Your task to perform on an android device: turn off picture-in-picture Image 0: 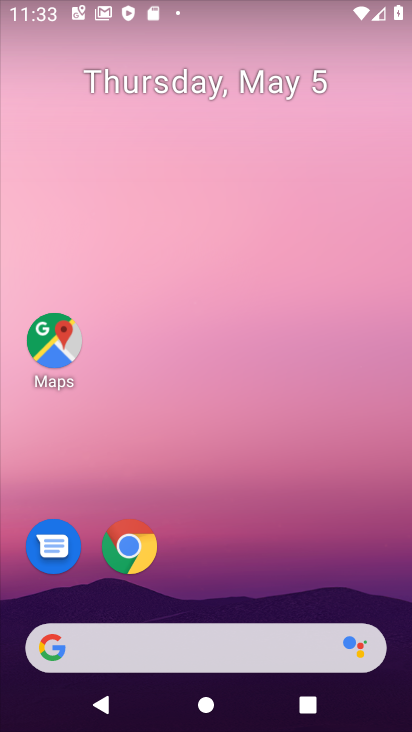
Step 0: drag from (248, 578) to (250, 85)
Your task to perform on an android device: turn off picture-in-picture Image 1: 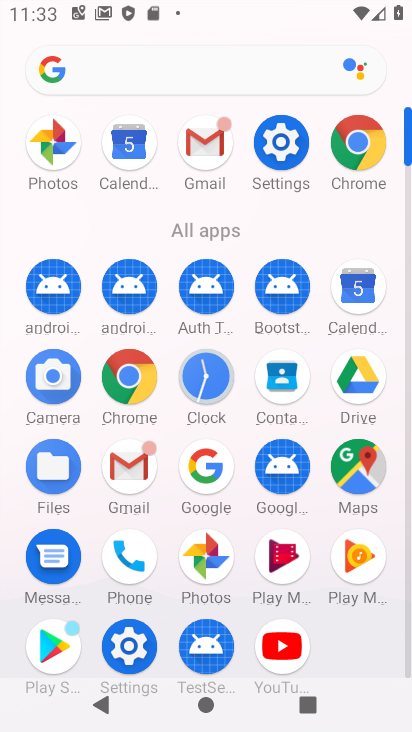
Step 1: click (288, 138)
Your task to perform on an android device: turn off picture-in-picture Image 2: 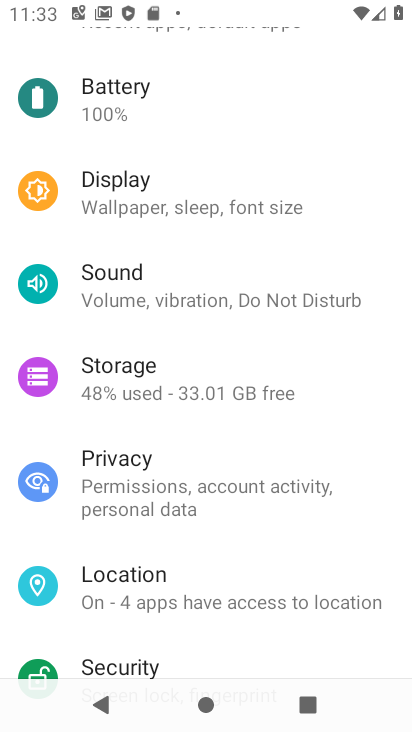
Step 2: drag from (173, 154) to (172, 475)
Your task to perform on an android device: turn off picture-in-picture Image 3: 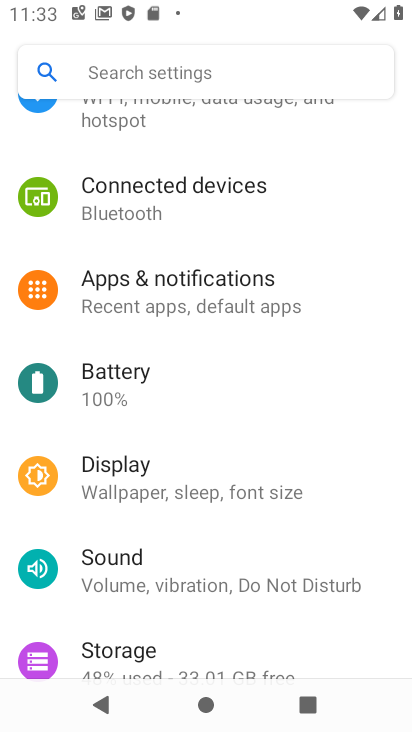
Step 3: click (207, 304)
Your task to perform on an android device: turn off picture-in-picture Image 4: 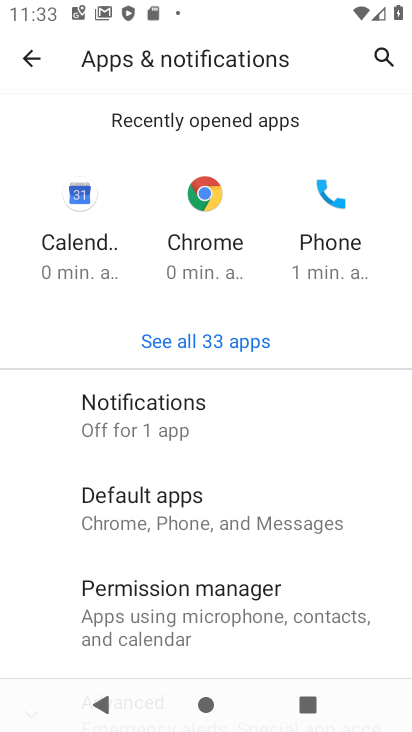
Step 4: drag from (302, 537) to (278, 223)
Your task to perform on an android device: turn off picture-in-picture Image 5: 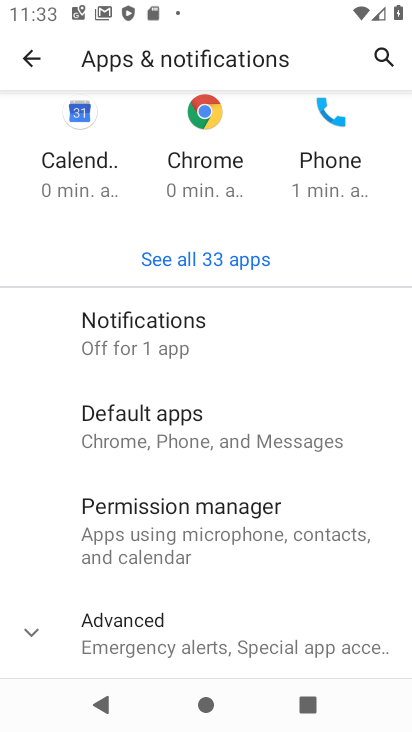
Step 5: click (265, 651)
Your task to perform on an android device: turn off picture-in-picture Image 6: 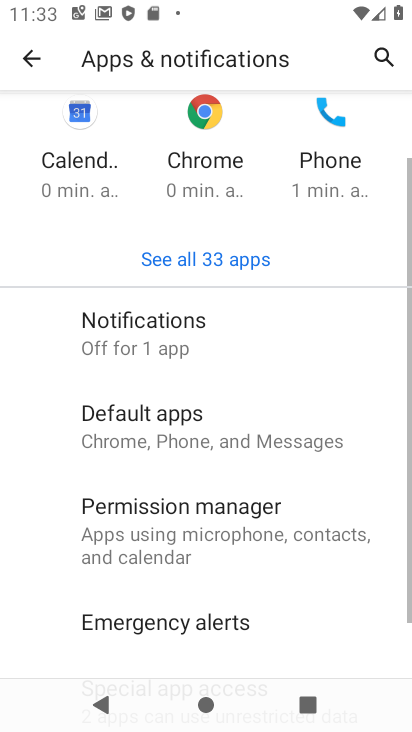
Step 6: drag from (265, 632) to (257, 280)
Your task to perform on an android device: turn off picture-in-picture Image 7: 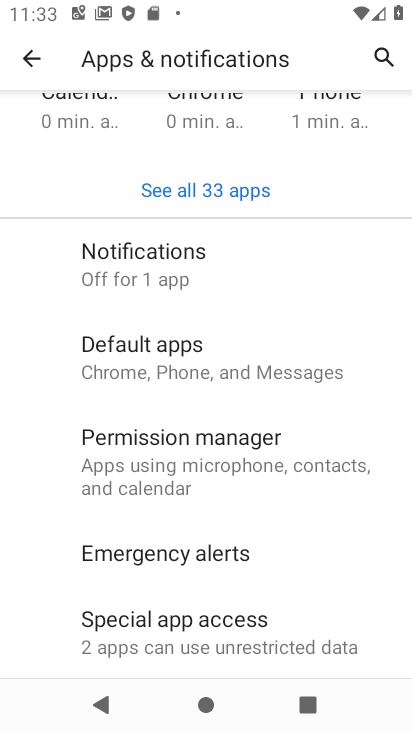
Step 7: click (259, 635)
Your task to perform on an android device: turn off picture-in-picture Image 8: 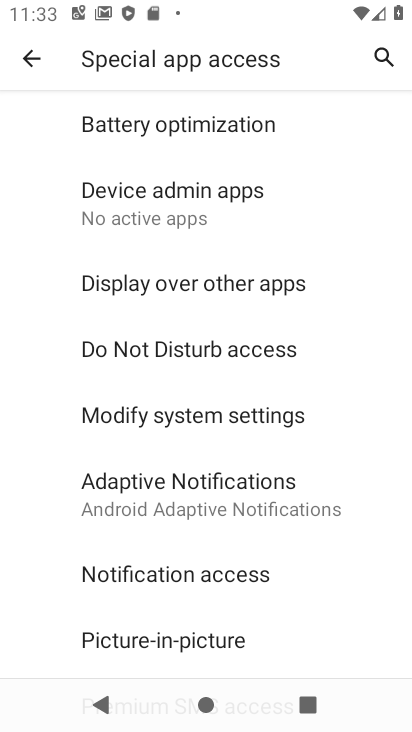
Step 8: click (245, 636)
Your task to perform on an android device: turn off picture-in-picture Image 9: 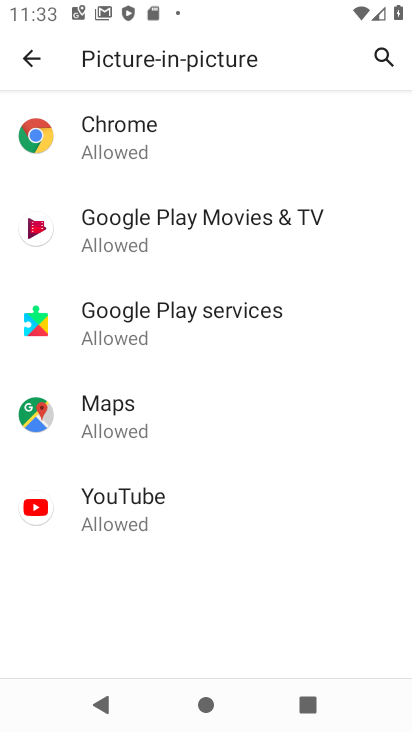
Step 9: click (150, 145)
Your task to perform on an android device: turn off picture-in-picture Image 10: 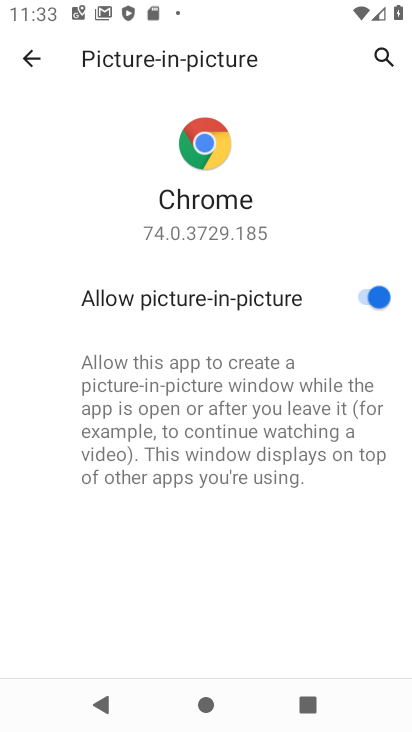
Step 10: click (361, 298)
Your task to perform on an android device: turn off picture-in-picture Image 11: 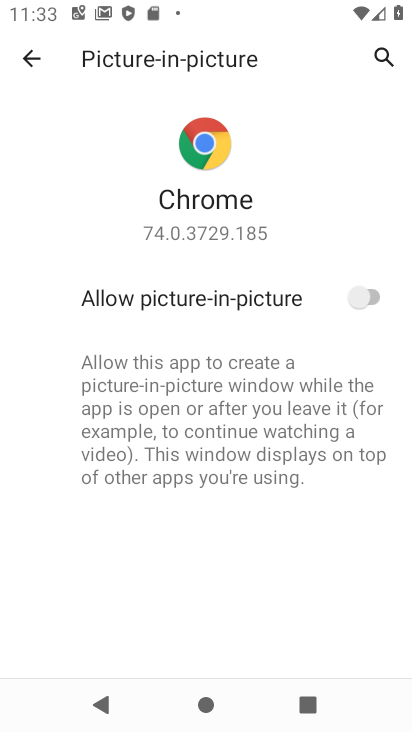
Step 11: click (31, 63)
Your task to perform on an android device: turn off picture-in-picture Image 12: 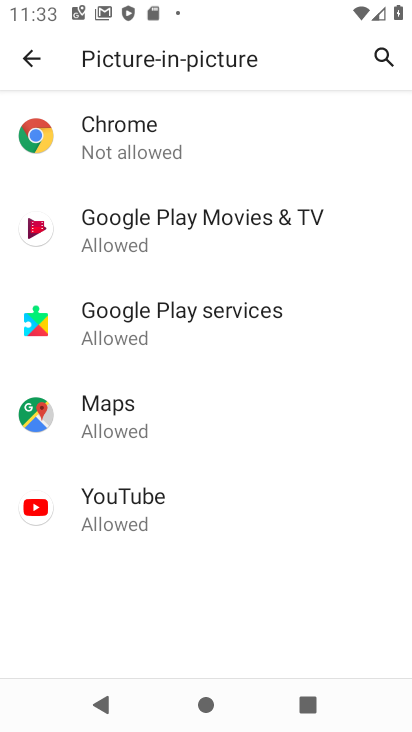
Step 12: click (141, 233)
Your task to perform on an android device: turn off picture-in-picture Image 13: 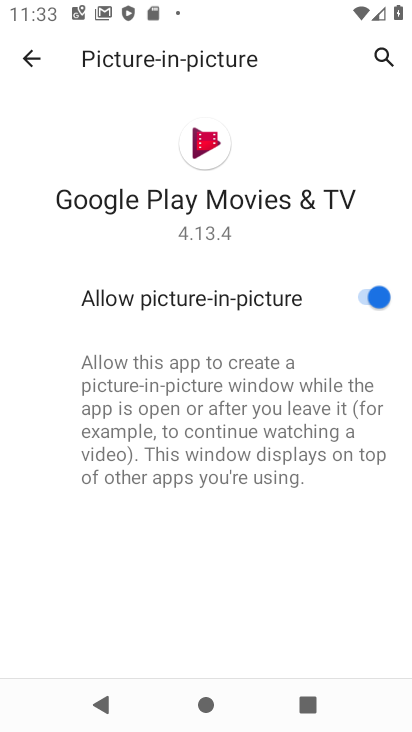
Step 13: click (364, 292)
Your task to perform on an android device: turn off picture-in-picture Image 14: 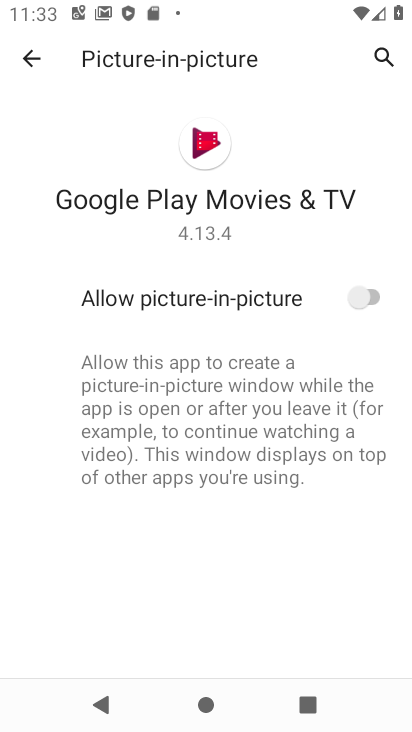
Step 14: click (21, 57)
Your task to perform on an android device: turn off picture-in-picture Image 15: 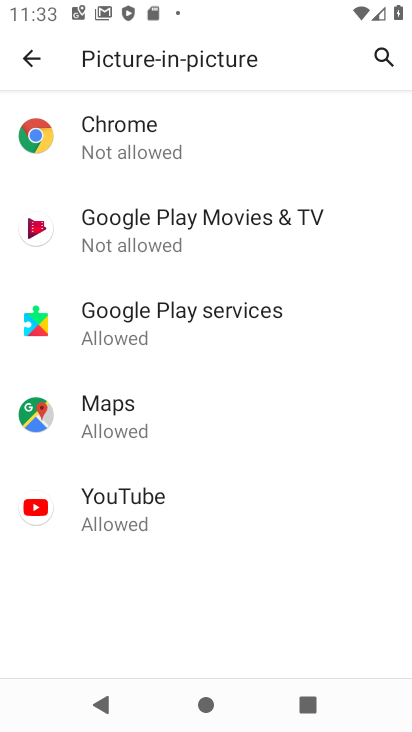
Step 15: click (259, 327)
Your task to perform on an android device: turn off picture-in-picture Image 16: 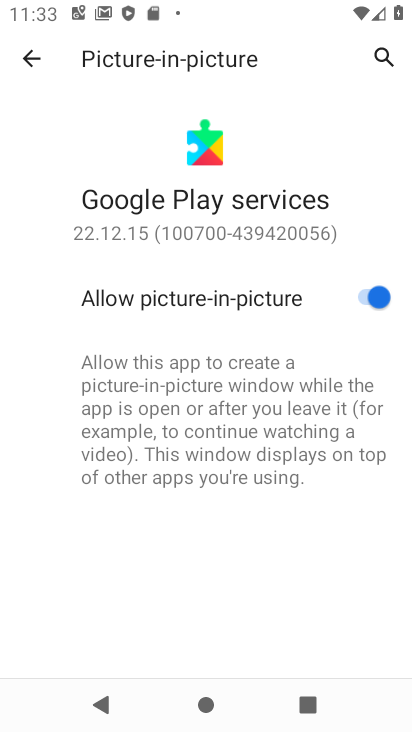
Step 16: click (359, 291)
Your task to perform on an android device: turn off picture-in-picture Image 17: 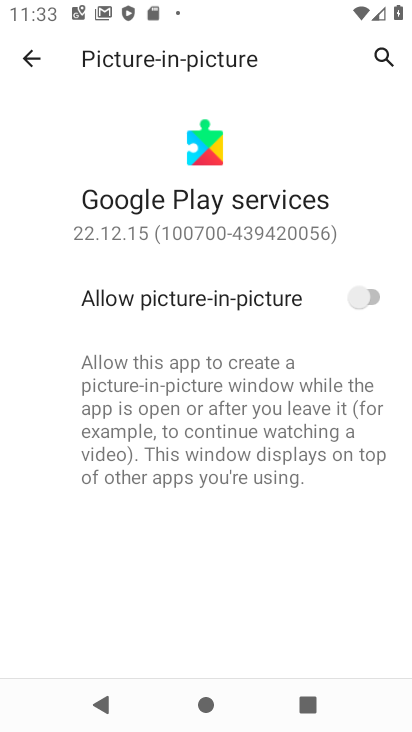
Step 17: click (29, 50)
Your task to perform on an android device: turn off picture-in-picture Image 18: 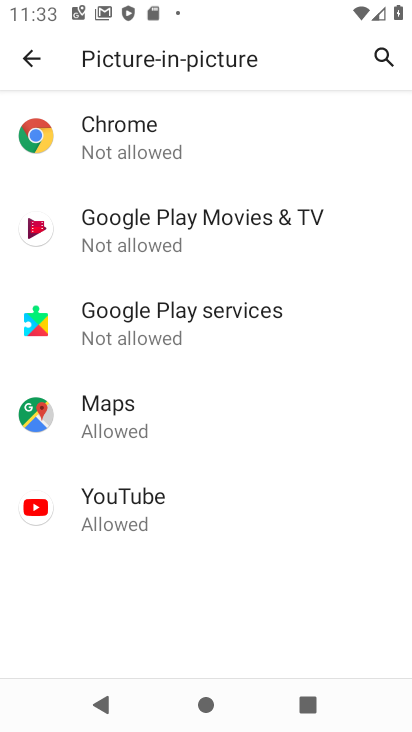
Step 18: click (163, 422)
Your task to perform on an android device: turn off picture-in-picture Image 19: 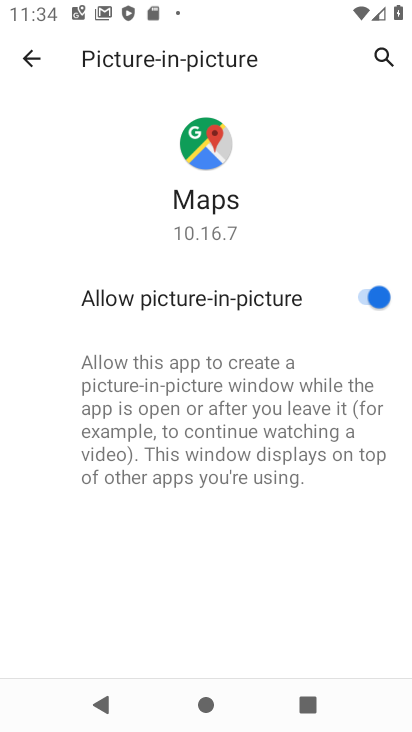
Step 19: click (362, 293)
Your task to perform on an android device: turn off picture-in-picture Image 20: 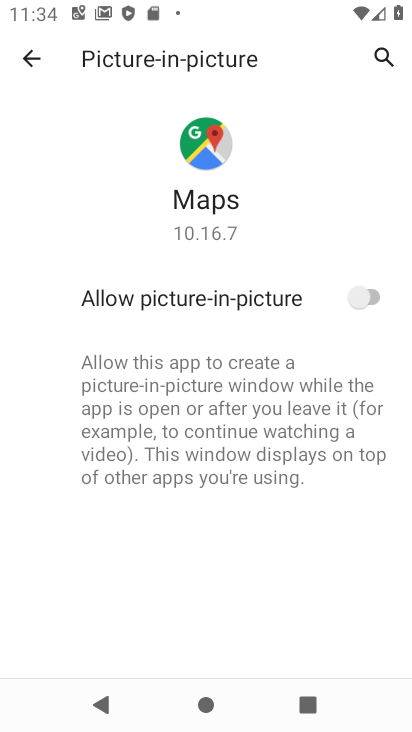
Step 20: click (25, 56)
Your task to perform on an android device: turn off picture-in-picture Image 21: 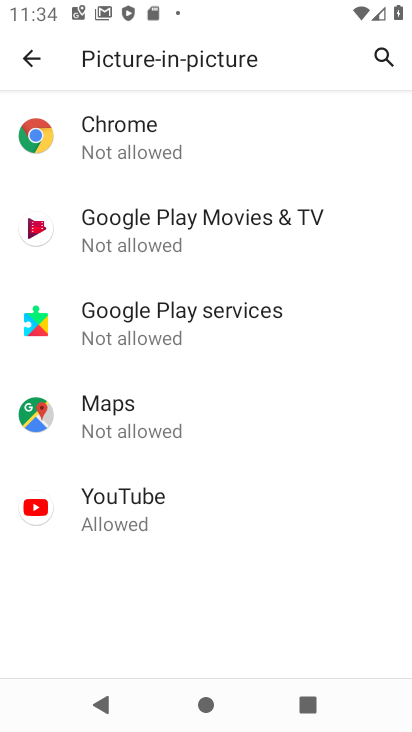
Step 21: click (150, 508)
Your task to perform on an android device: turn off picture-in-picture Image 22: 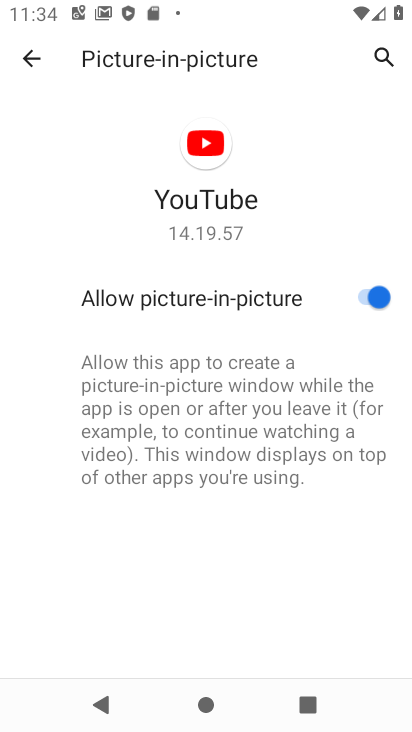
Step 22: click (366, 293)
Your task to perform on an android device: turn off picture-in-picture Image 23: 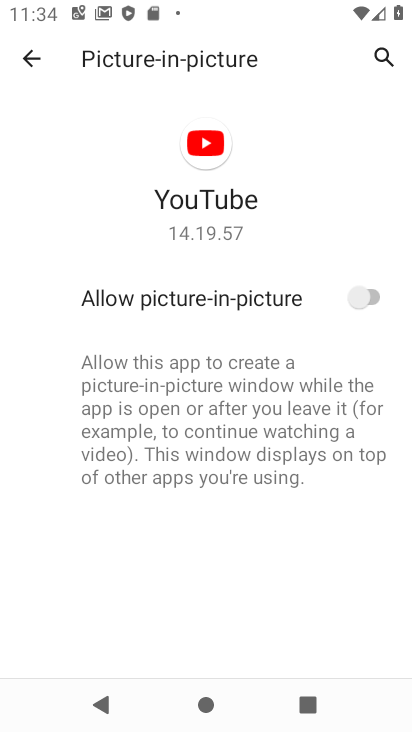
Step 23: click (33, 62)
Your task to perform on an android device: turn off picture-in-picture Image 24: 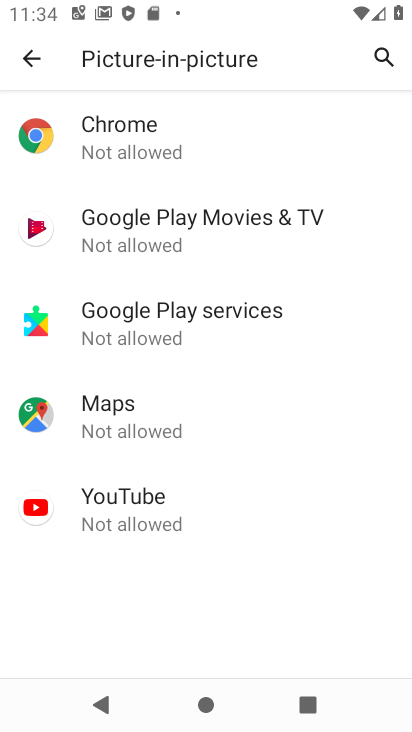
Step 24: task complete